Your task to perform on an android device: open device folders in google photos Image 0: 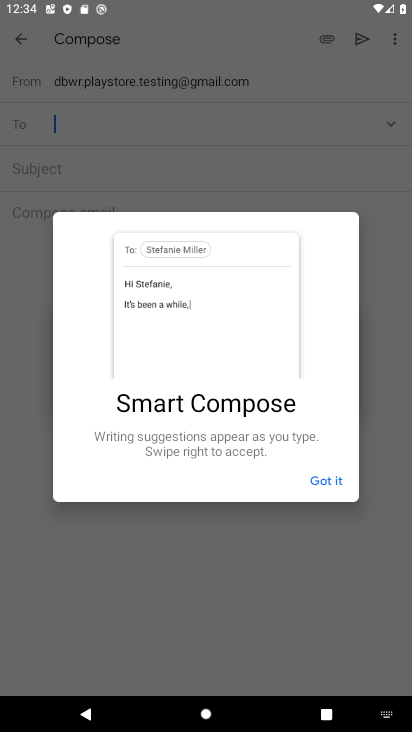
Step 0: press home button
Your task to perform on an android device: open device folders in google photos Image 1: 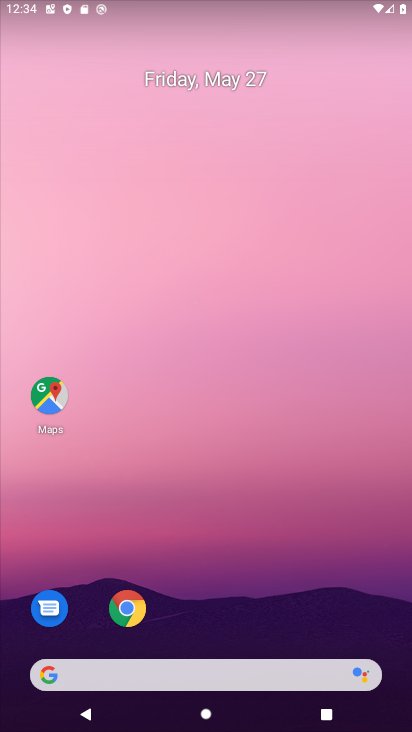
Step 1: drag from (285, 335) to (295, 74)
Your task to perform on an android device: open device folders in google photos Image 2: 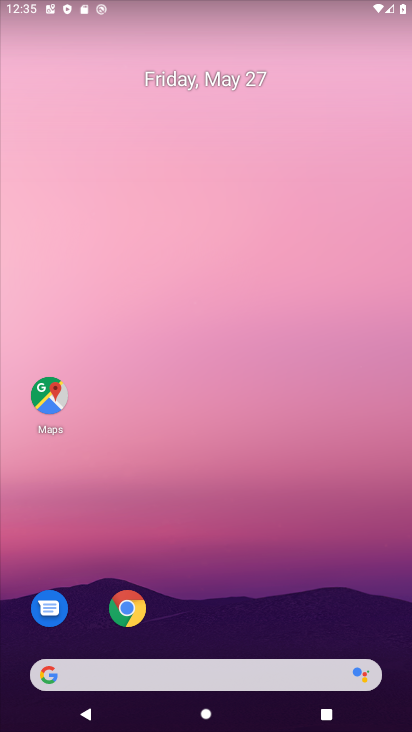
Step 2: drag from (199, 566) to (252, 97)
Your task to perform on an android device: open device folders in google photos Image 3: 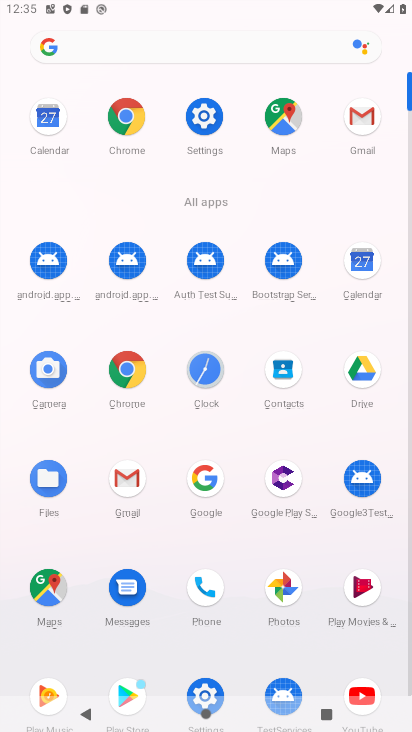
Step 3: click (278, 585)
Your task to perform on an android device: open device folders in google photos Image 4: 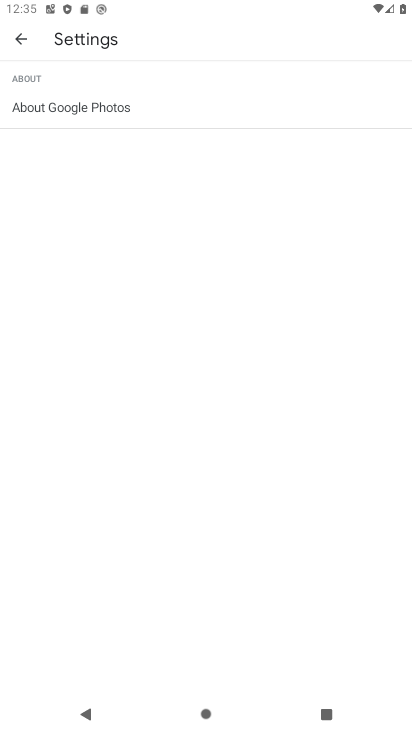
Step 4: task complete